Your task to perform on an android device: turn on wifi Image 0: 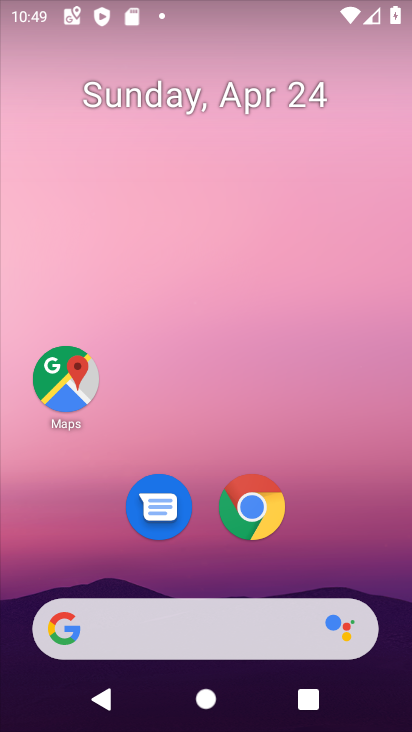
Step 0: drag from (329, 7) to (334, 228)
Your task to perform on an android device: turn on wifi Image 1: 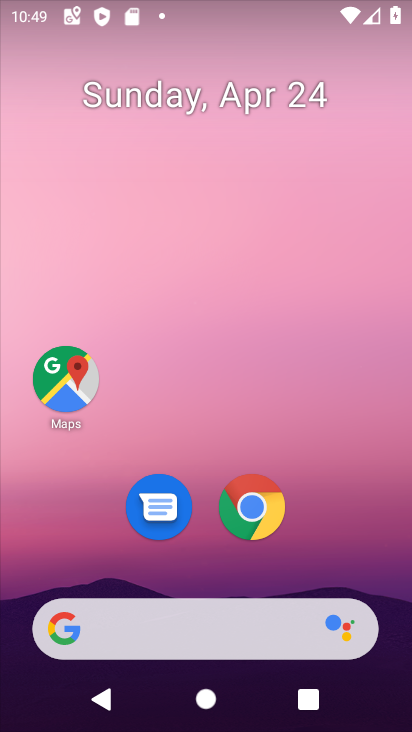
Step 1: task complete